Your task to perform on an android device: open chrome and create a bookmark for the current page Image 0: 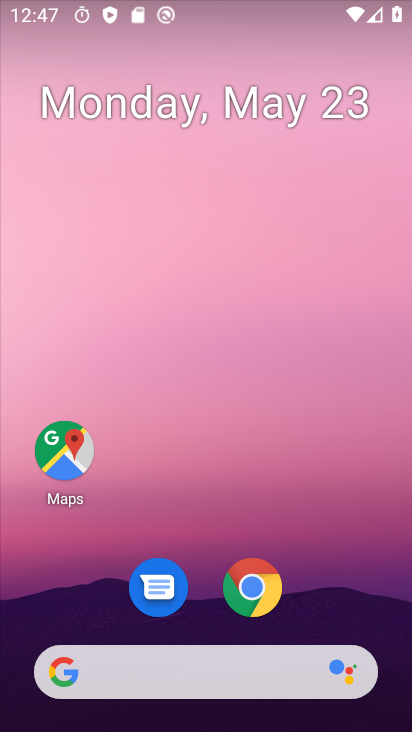
Step 0: click (250, 586)
Your task to perform on an android device: open chrome and create a bookmark for the current page Image 1: 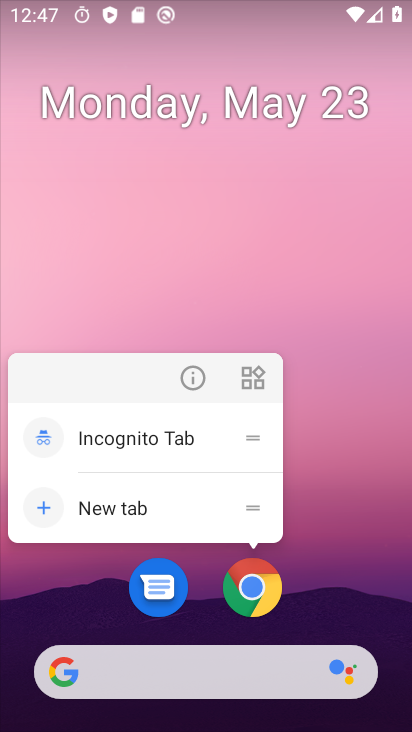
Step 1: click (257, 592)
Your task to perform on an android device: open chrome and create a bookmark for the current page Image 2: 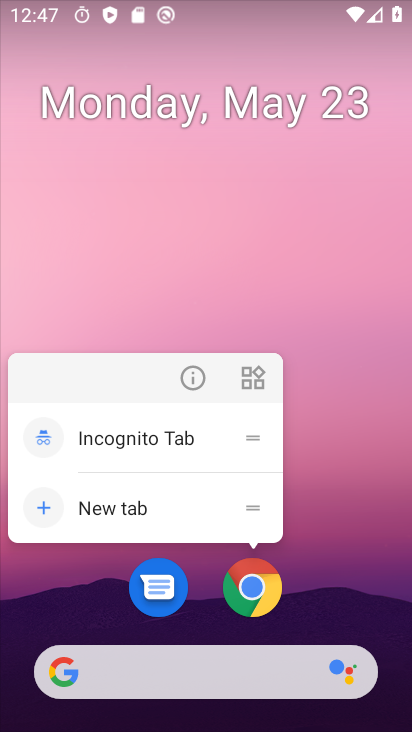
Step 2: click (255, 578)
Your task to perform on an android device: open chrome and create a bookmark for the current page Image 3: 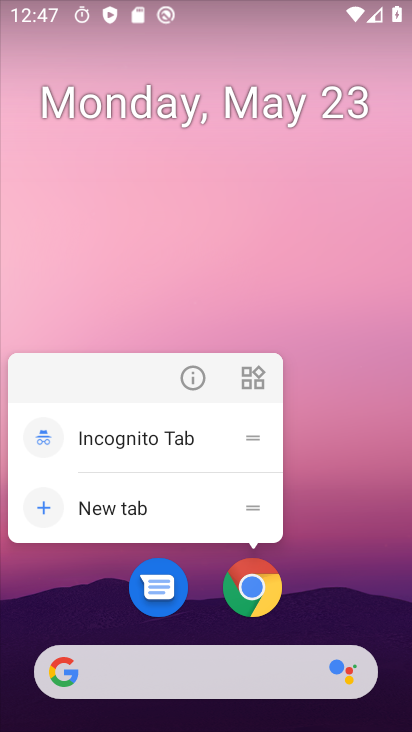
Step 3: click (255, 578)
Your task to perform on an android device: open chrome and create a bookmark for the current page Image 4: 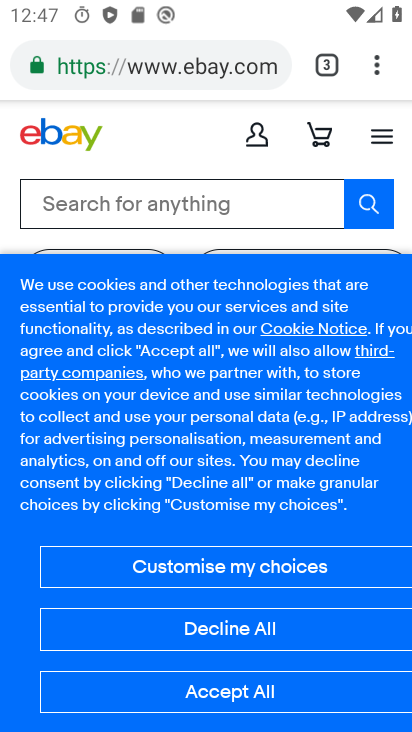
Step 4: task complete